Your task to perform on an android device: set the stopwatch Image 0: 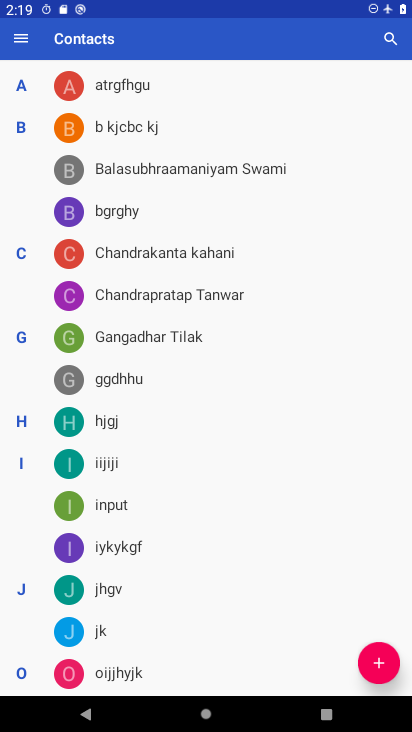
Step 0: press home button
Your task to perform on an android device: set the stopwatch Image 1: 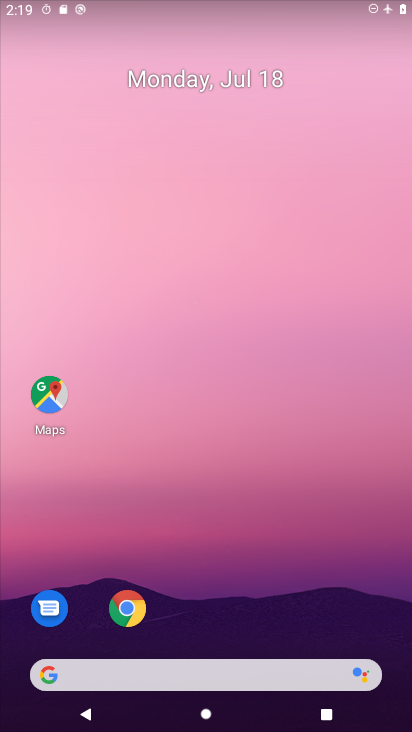
Step 1: drag from (236, 691) to (264, 121)
Your task to perform on an android device: set the stopwatch Image 2: 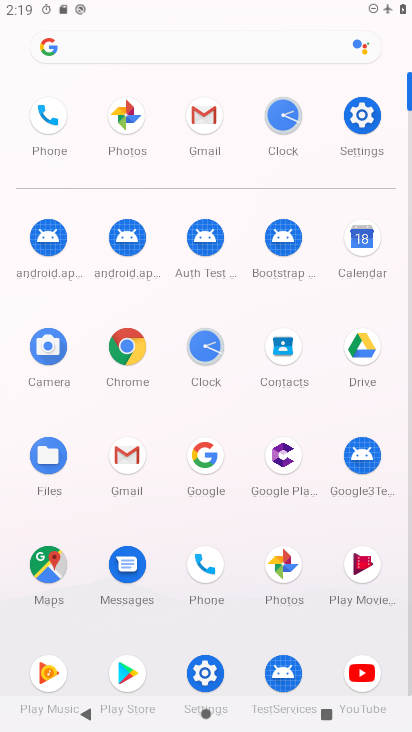
Step 2: click (202, 351)
Your task to perform on an android device: set the stopwatch Image 3: 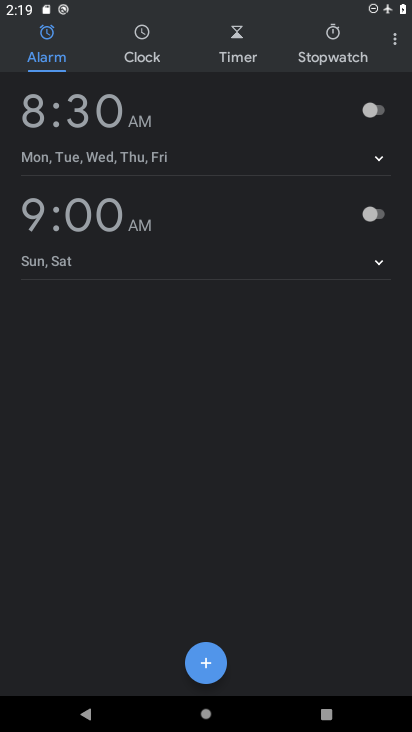
Step 3: click (332, 42)
Your task to perform on an android device: set the stopwatch Image 4: 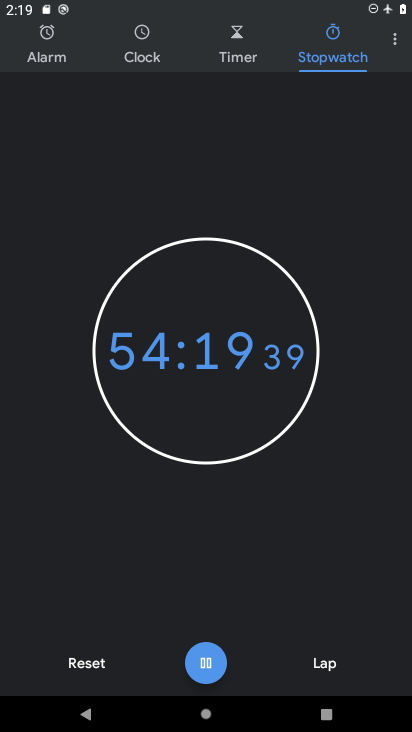
Step 4: task complete